Your task to perform on an android device: Turn on the flashlight Image 0: 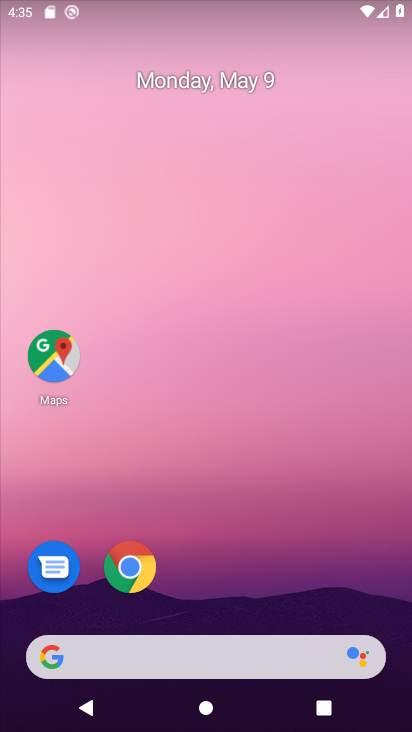
Step 0: drag from (316, 5) to (329, 483)
Your task to perform on an android device: Turn on the flashlight Image 1: 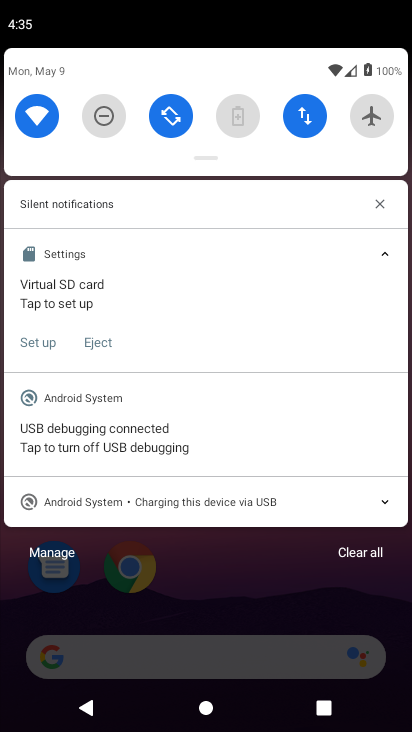
Step 1: task complete